Your task to perform on an android device: toggle airplane mode Image 0: 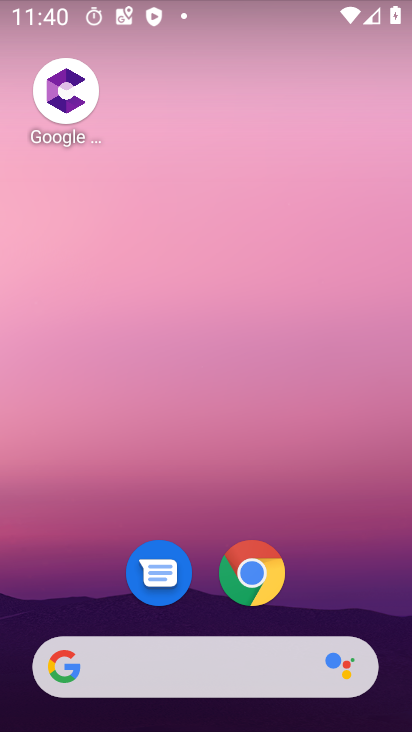
Step 0: drag from (284, 721) to (232, 294)
Your task to perform on an android device: toggle airplane mode Image 1: 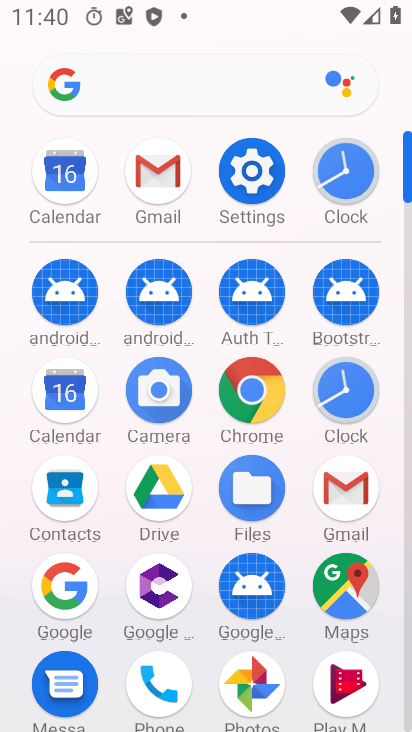
Step 1: click (235, 178)
Your task to perform on an android device: toggle airplane mode Image 2: 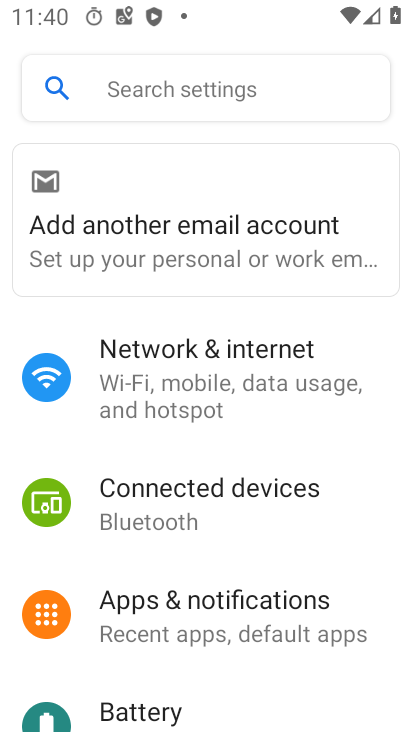
Step 2: click (276, 378)
Your task to perform on an android device: toggle airplane mode Image 3: 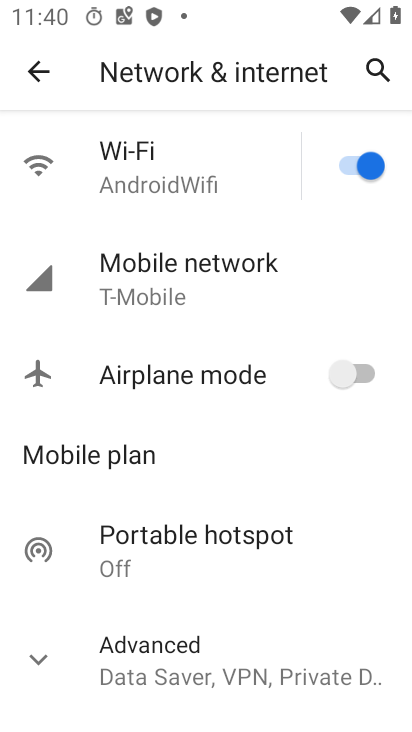
Step 3: click (363, 368)
Your task to perform on an android device: toggle airplane mode Image 4: 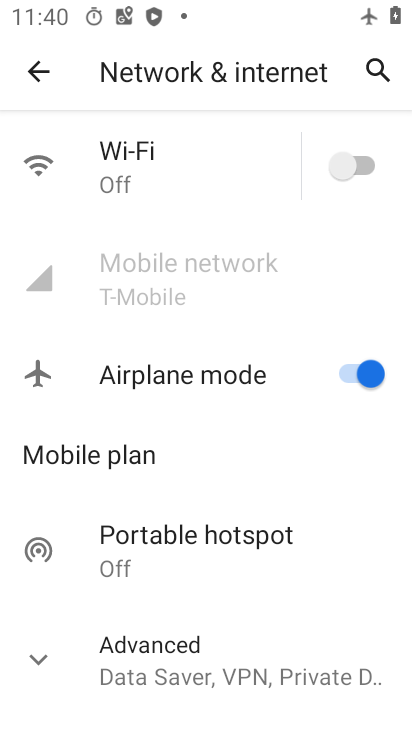
Step 4: task complete